Your task to perform on an android device: Show me popular videos on Youtube Image 0: 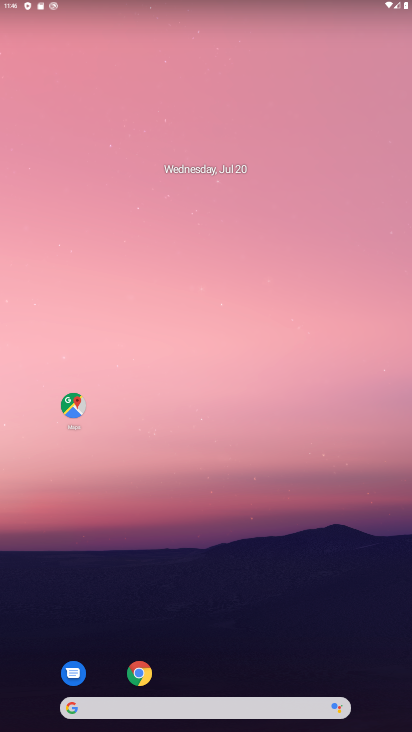
Step 0: drag from (182, 698) to (185, 408)
Your task to perform on an android device: Show me popular videos on Youtube Image 1: 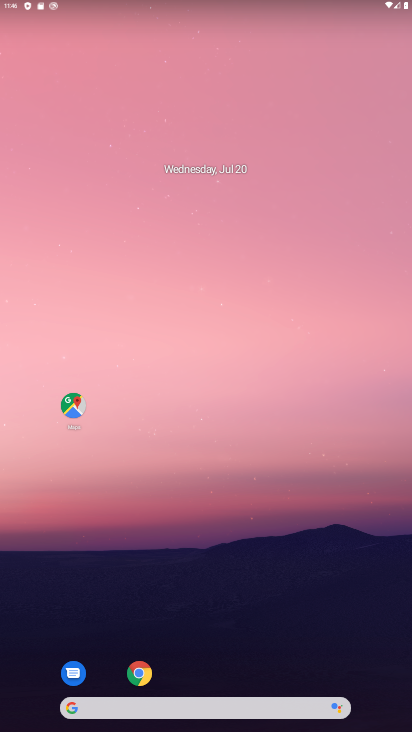
Step 1: drag from (190, 693) to (173, 194)
Your task to perform on an android device: Show me popular videos on Youtube Image 2: 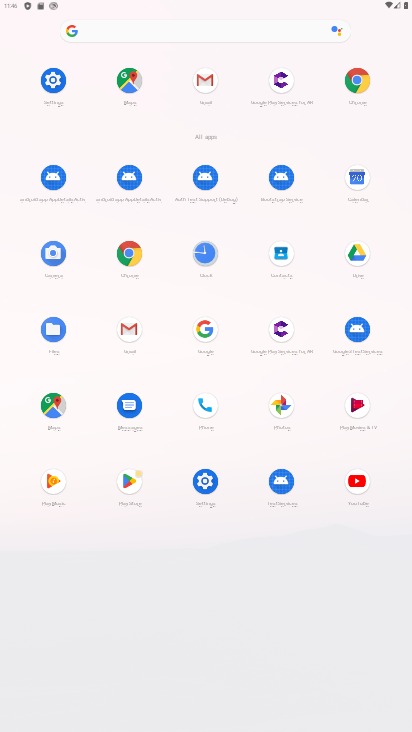
Step 2: click (350, 480)
Your task to perform on an android device: Show me popular videos on Youtube Image 3: 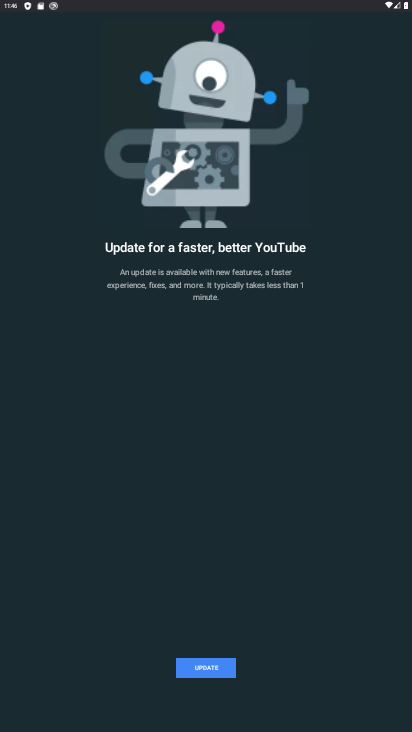
Step 3: click (190, 671)
Your task to perform on an android device: Show me popular videos on Youtube Image 4: 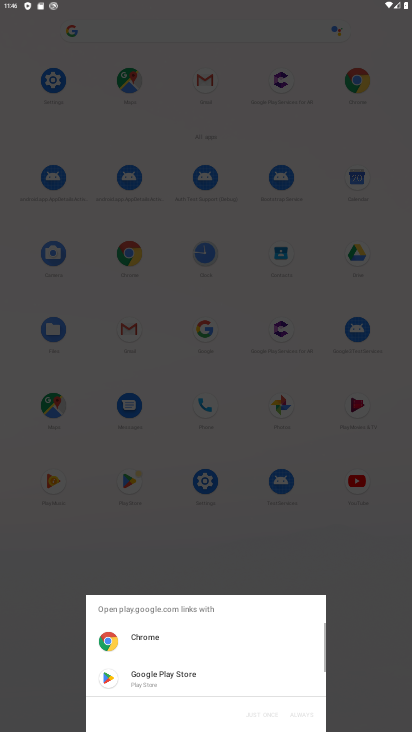
Step 4: click (131, 673)
Your task to perform on an android device: Show me popular videos on Youtube Image 5: 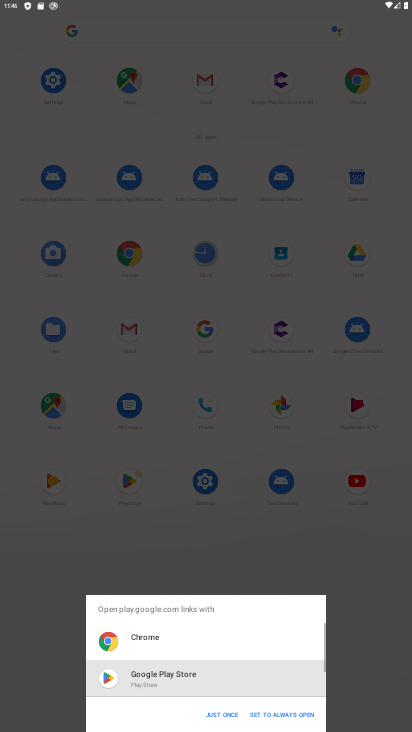
Step 5: click (222, 718)
Your task to perform on an android device: Show me popular videos on Youtube Image 6: 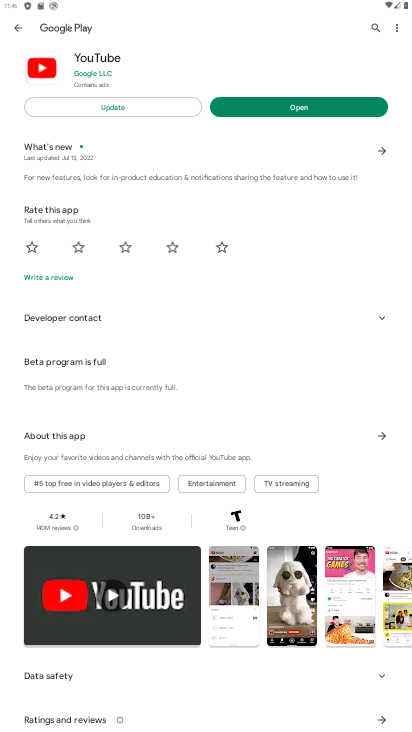
Step 6: click (96, 108)
Your task to perform on an android device: Show me popular videos on Youtube Image 7: 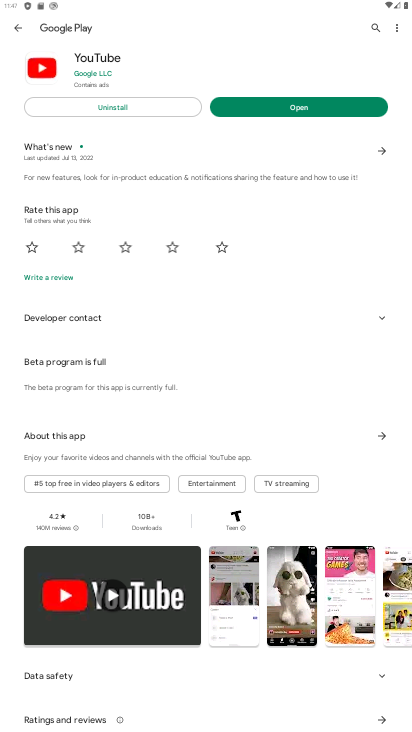
Step 7: click (269, 112)
Your task to perform on an android device: Show me popular videos on Youtube Image 8: 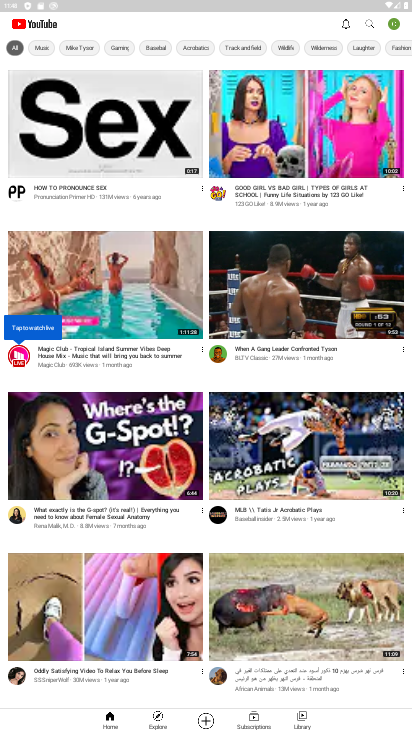
Step 8: task complete